Your task to perform on an android device: delete location history Image 0: 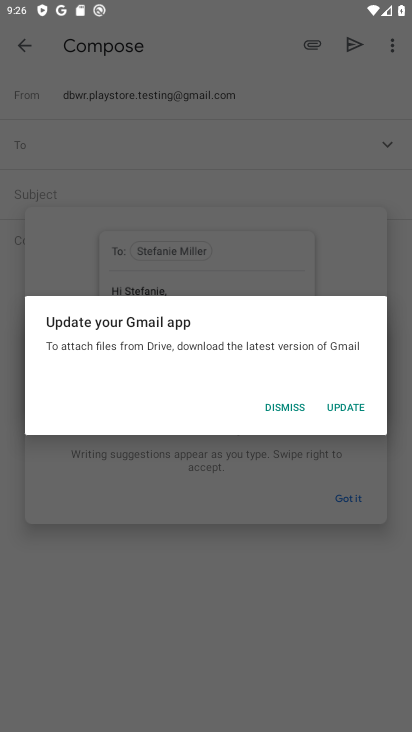
Step 0: press back button
Your task to perform on an android device: delete location history Image 1: 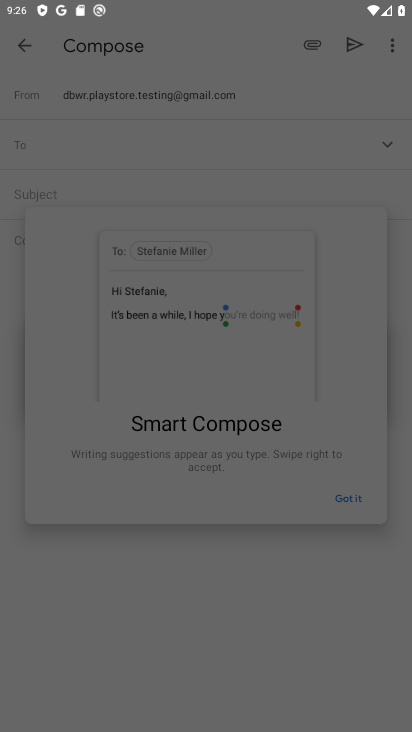
Step 1: press home button
Your task to perform on an android device: delete location history Image 2: 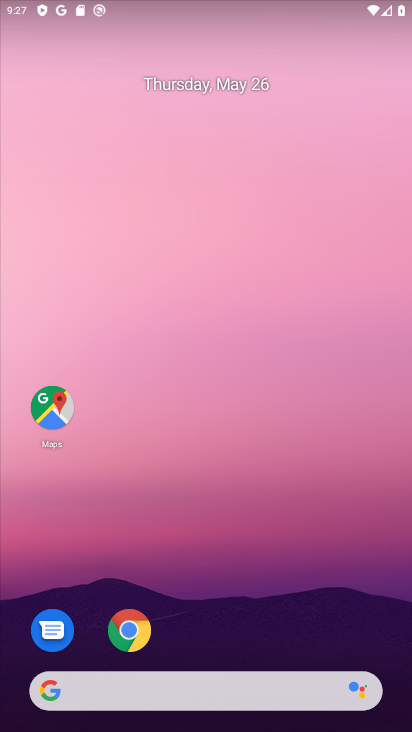
Step 2: drag from (218, 615) to (220, 88)
Your task to perform on an android device: delete location history Image 3: 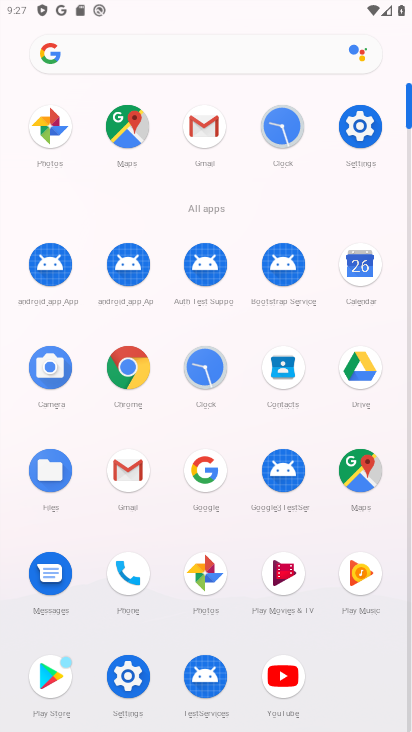
Step 3: click (350, 127)
Your task to perform on an android device: delete location history Image 4: 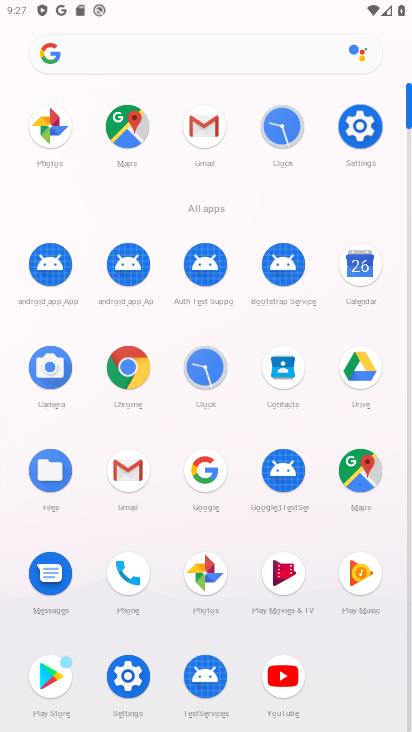
Step 4: click (350, 127)
Your task to perform on an android device: delete location history Image 5: 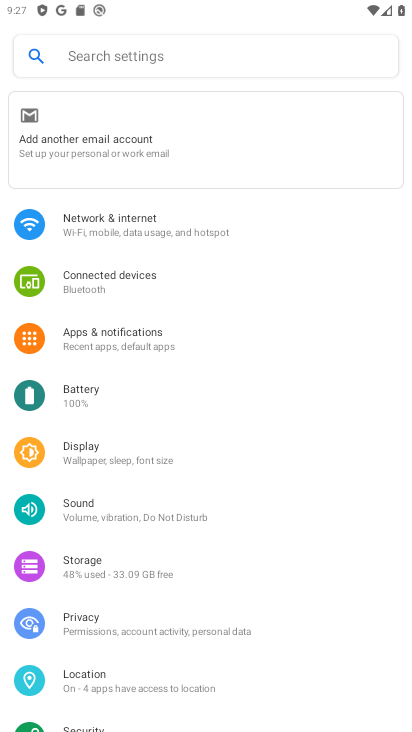
Step 5: press back button
Your task to perform on an android device: delete location history Image 6: 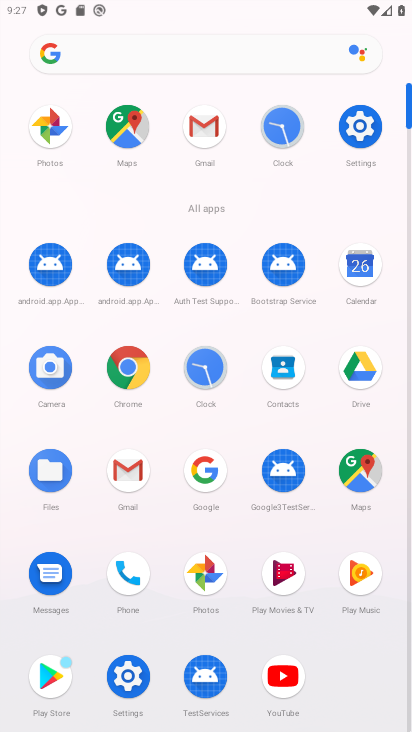
Step 6: click (352, 478)
Your task to perform on an android device: delete location history Image 7: 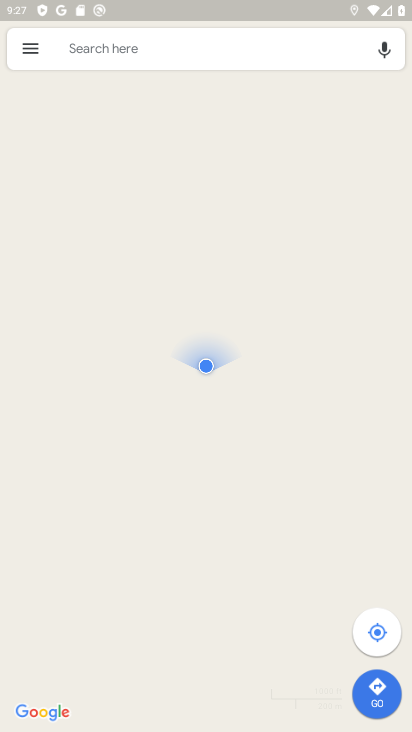
Step 7: click (28, 39)
Your task to perform on an android device: delete location history Image 8: 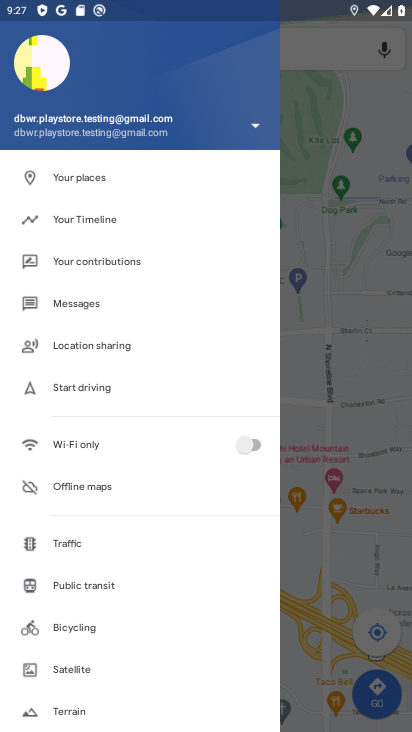
Step 8: click (81, 214)
Your task to perform on an android device: delete location history Image 9: 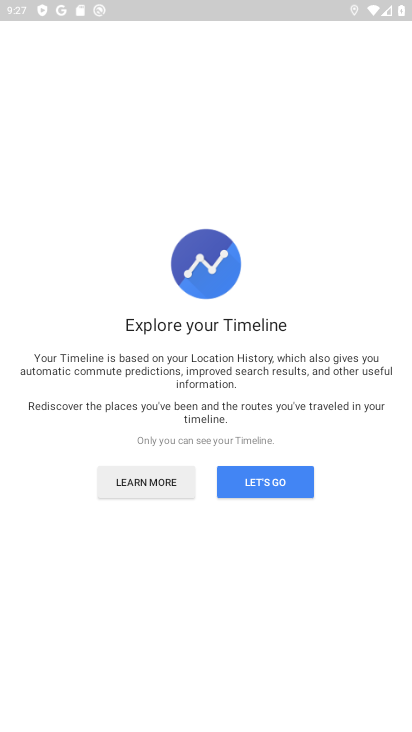
Step 9: click (255, 497)
Your task to perform on an android device: delete location history Image 10: 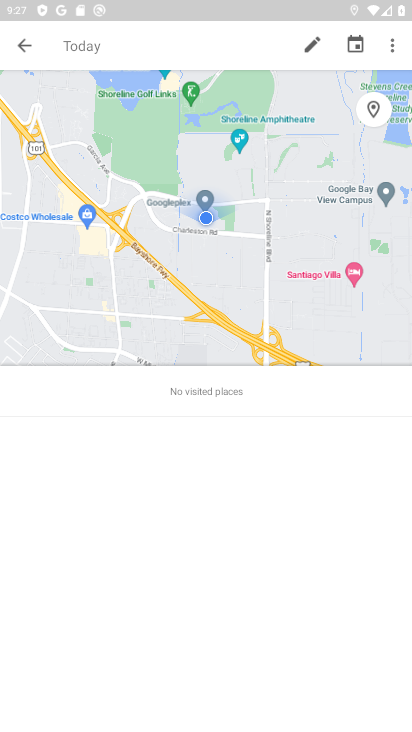
Step 10: click (389, 54)
Your task to perform on an android device: delete location history Image 11: 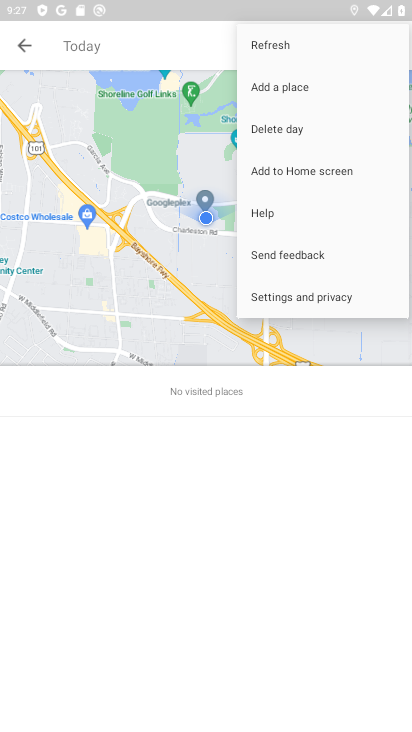
Step 11: click (271, 285)
Your task to perform on an android device: delete location history Image 12: 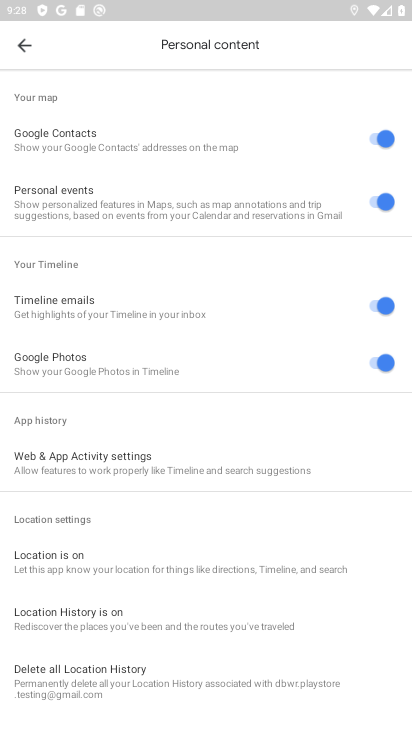
Step 12: click (79, 675)
Your task to perform on an android device: delete location history Image 13: 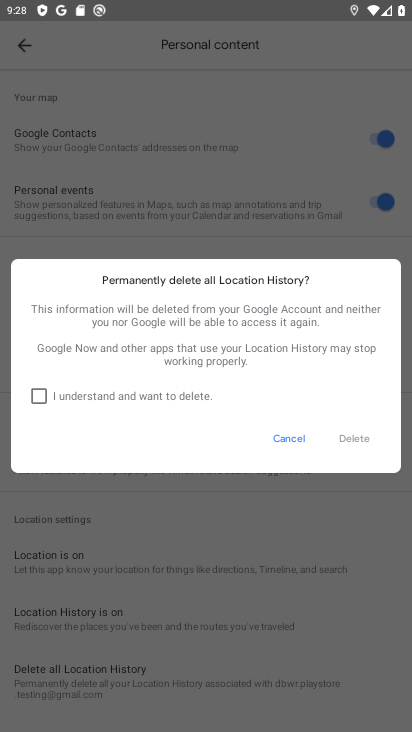
Step 13: click (45, 393)
Your task to perform on an android device: delete location history Image 14: 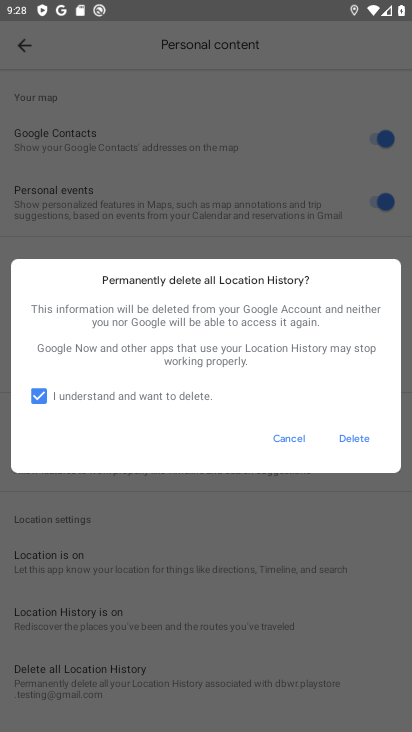
Step 14: click (345, 427)
Your task to perform on an android device: delete location history Image 15: 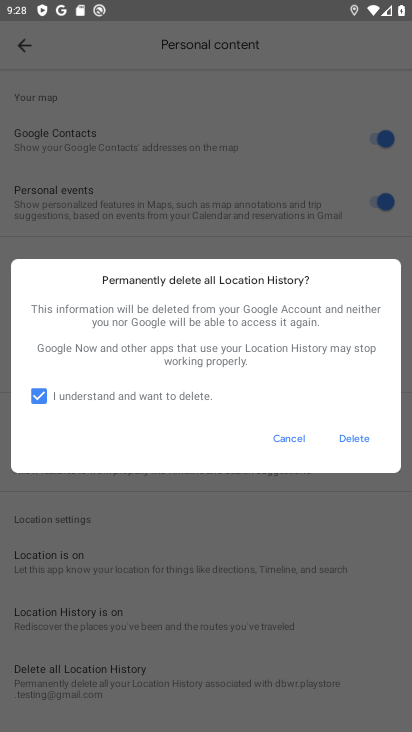
Step 15: click (345, 427)
Your task to perform on an android device: delete location history Image 16: 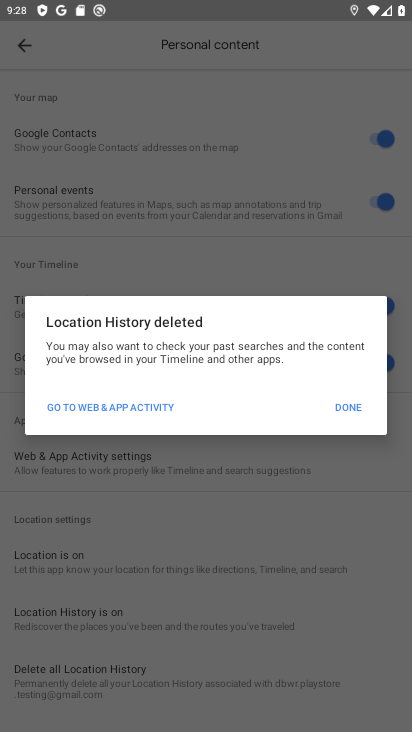
Step 16: click (345, 413)
Your task to perform on an android device: delete location history Image 17: 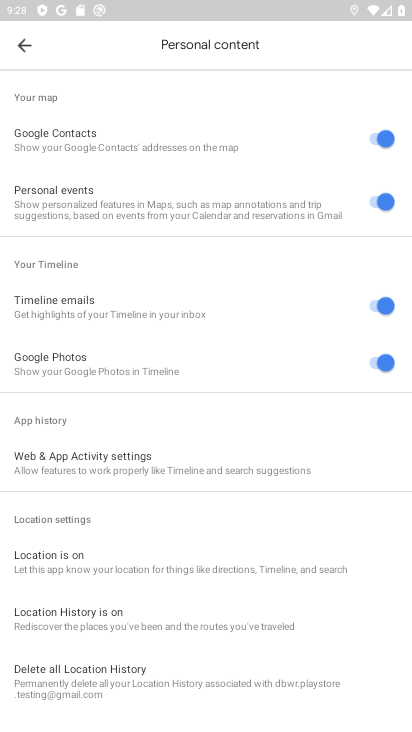
Step 17: task complete